Your task to perform on an android device: delete location history Image 0: 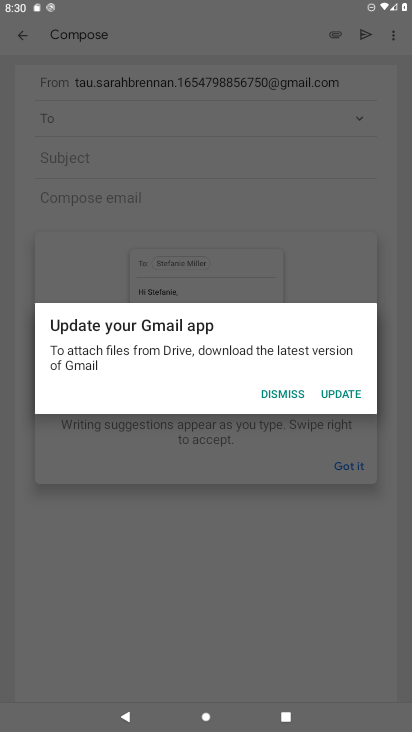
Step 0: press home button
Your task to perform on an android device: delete location history Image 1: 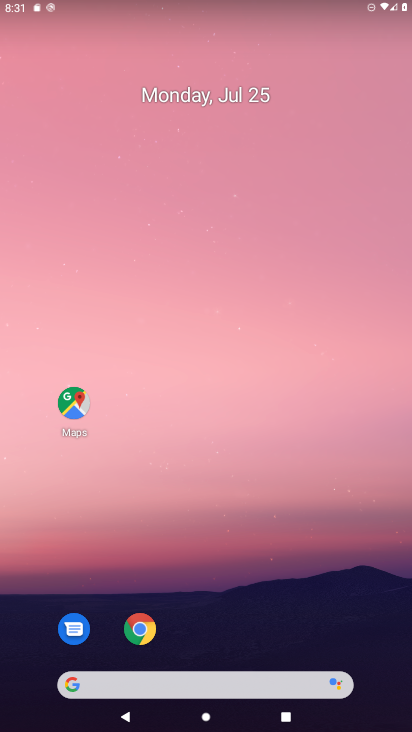
Step 1: click (82, 404)
Your task to perform on an android device: delete location history Image 2: 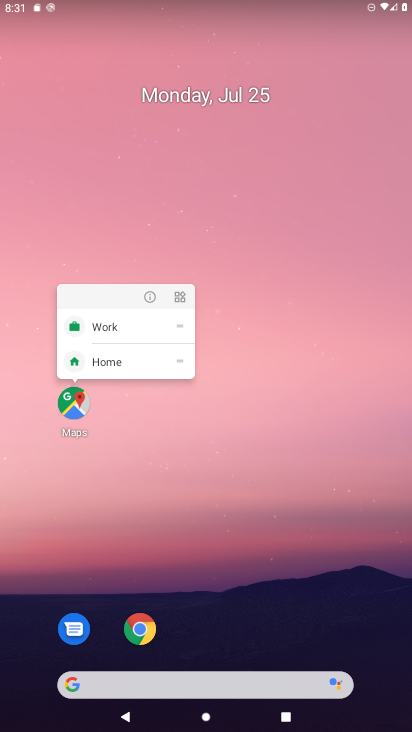
Step 2: click (68, 402)
Your task to perform on an android device: delete location history Image 3: 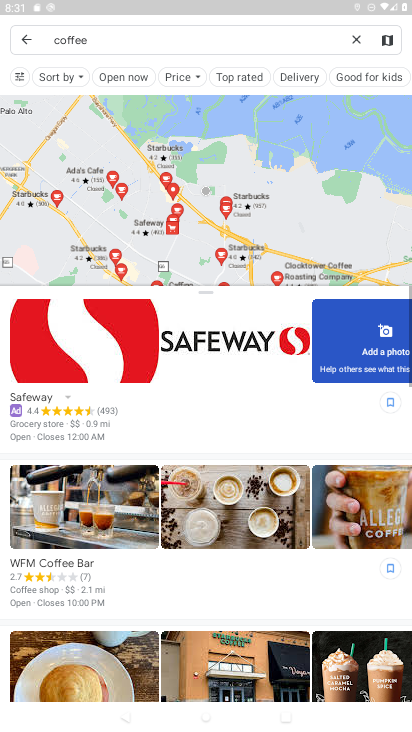
Step 3: click (355, 43)
Your task to perform on an android device: delete location history Image 4: 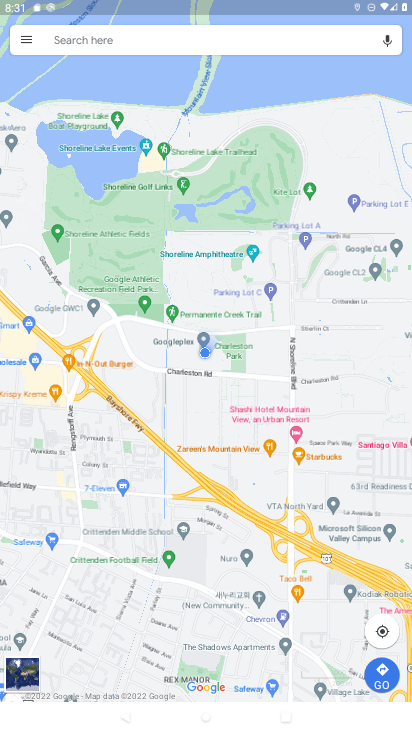
Step 4: click (30, 42)
Your task to perform on an android device: delete location history Image 5: 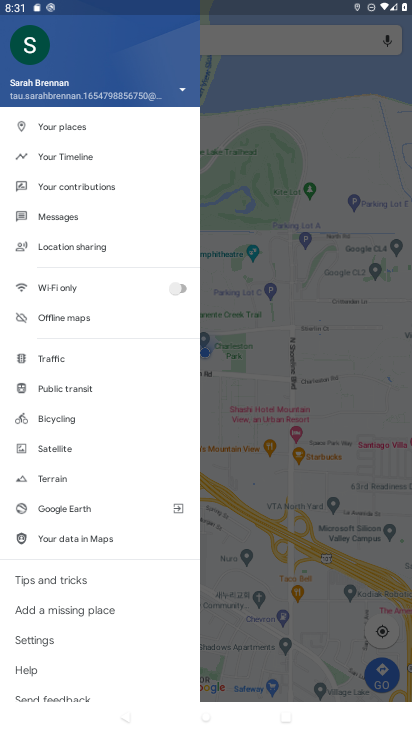
Step 5: click (67, 160)
Your task to perform on an android device: delete location history Image 6: 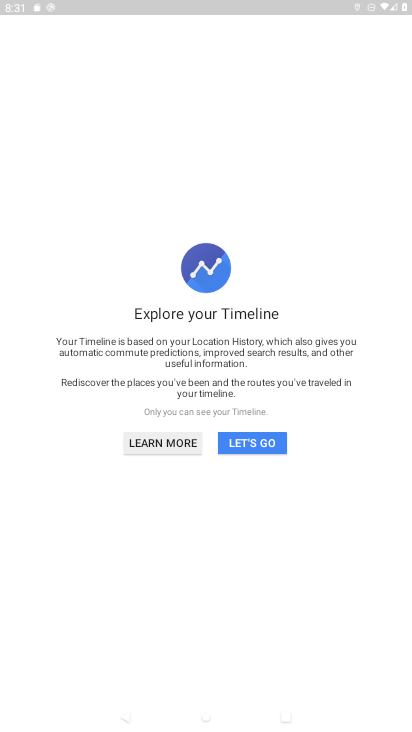
Step 6: click (249, 441)
Your task to perform on an android device: delete location history Image 7: 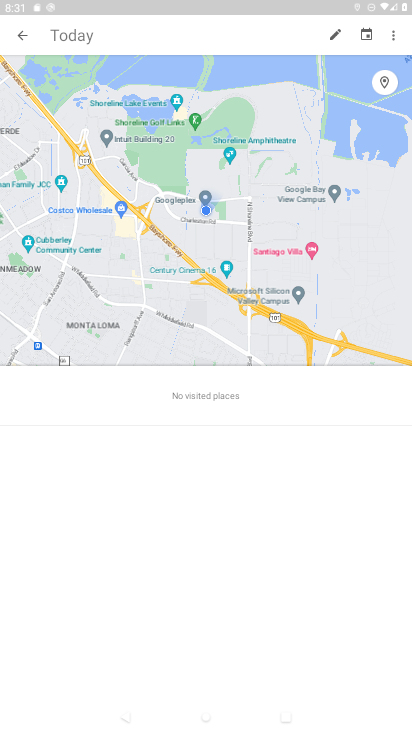
Step 7: click (396, 35)
Your task to perform on an android device: delete location history Image 8: 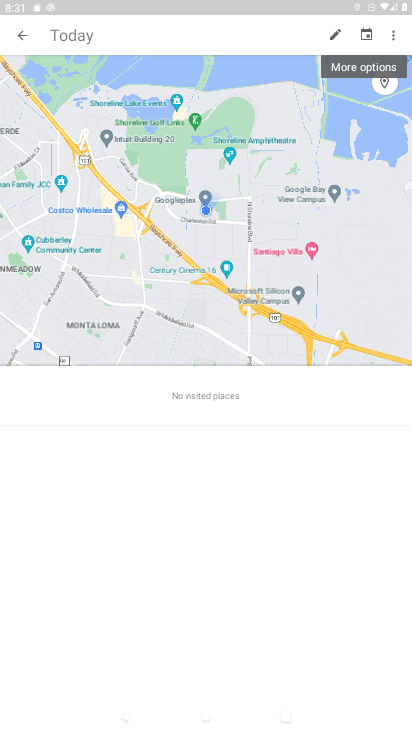
Step 8: click (396, 35)
Your task to perform on an android device: delete location history Image 9: 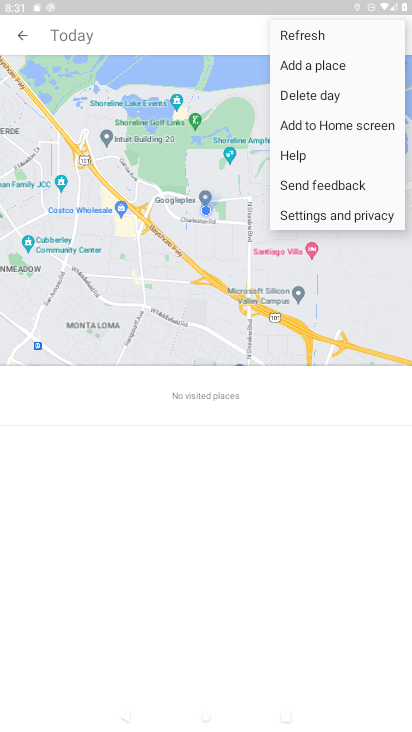
Step 9: click (313, 220)
Your task to perform on an android device: delete location history Image 10: 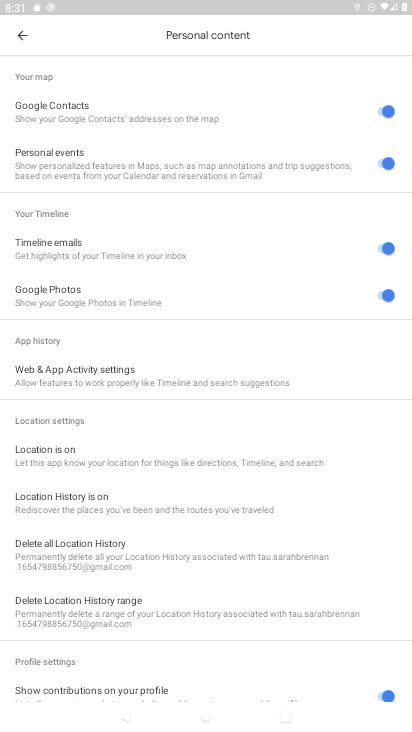
Step 10: click (43, 556)
Your task to perform on an android device: delete location history Image 11: 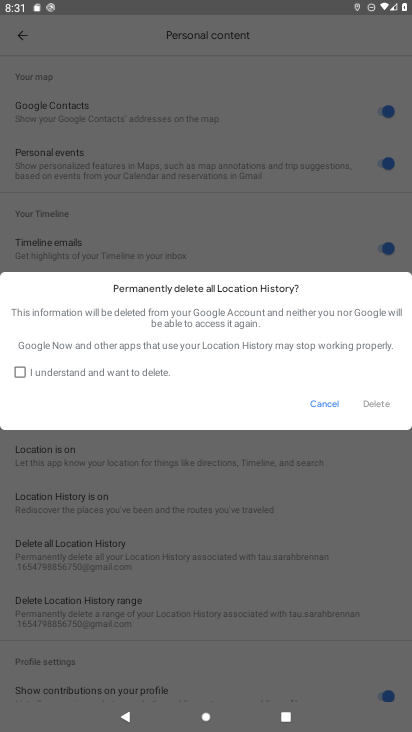
Step 11: click (21, 372)
Your task to perform on an android device: delete location history Image 12: 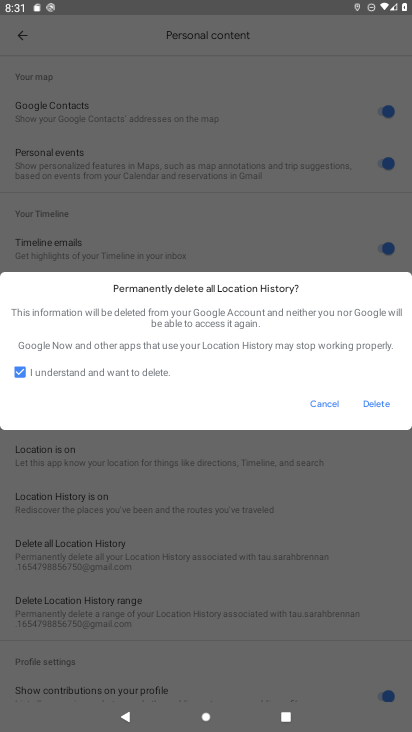
Step 12: click (382, 409)
Your task to perform on an android device: delete location history Image 13: 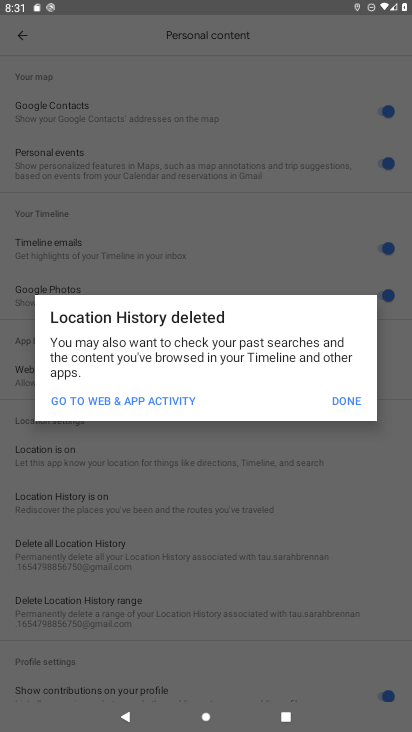
Step 13: click (353, 412)
Your task to perform on an android device: delete location history Image 14: 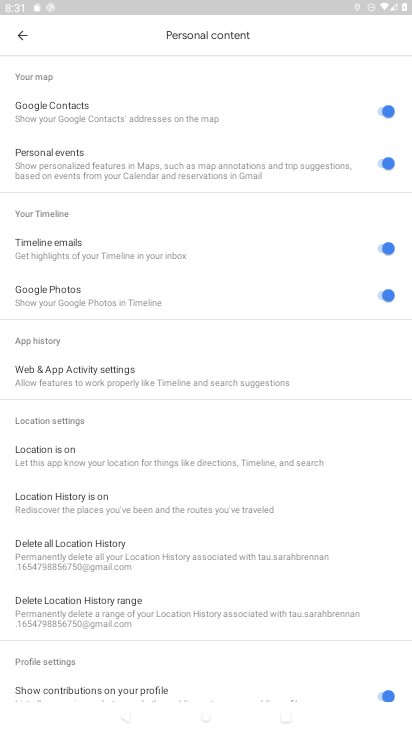
Step 14: task complete